Your task to perform on an android device: Open calendar and show me the first week of next month Image 0: 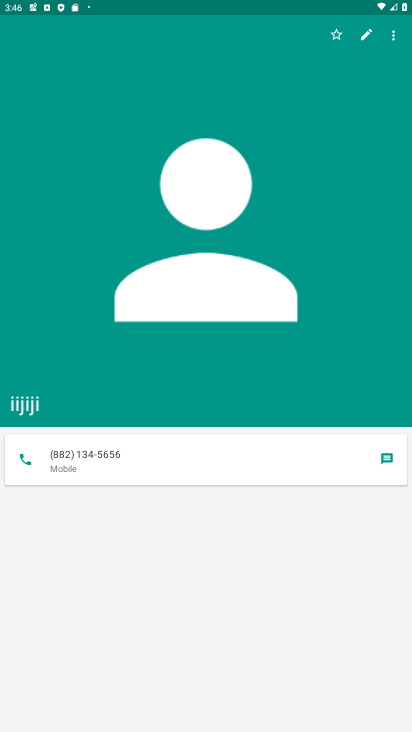
Step 0: press home button
Your task to perform on an android device: Open calendar and show me the first week of next month Image 1: 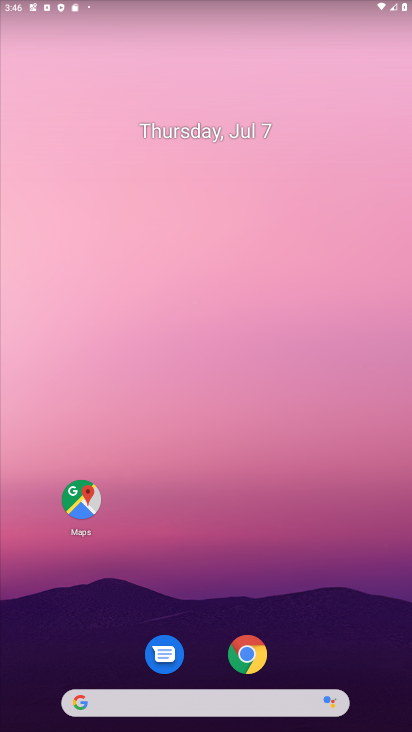
Step 1: drag from (317, 677) to (285, 227)
Your task to perform on an android device: Open calendar and show me the first week of next month Image 2: 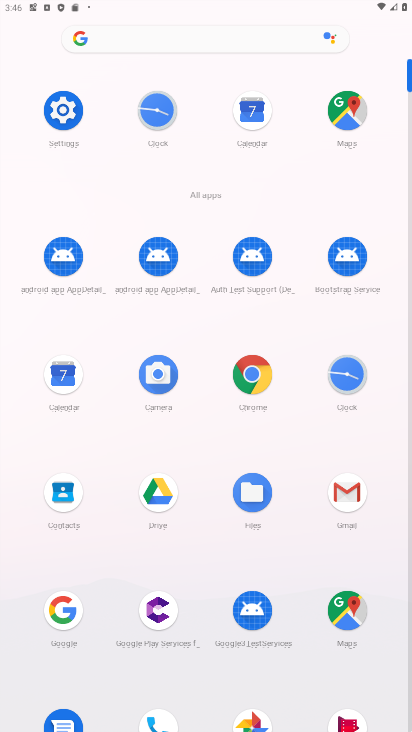
Step 2: click (242, 123)
Your task to perform on an android device: Open calendar and show me the first week of next month Image 3: 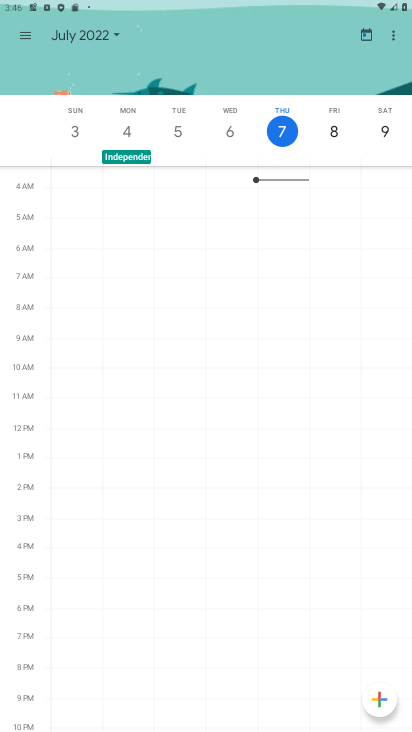
Step 3: click (86, 35)
Your task to perform on an android device: Open calendar and show me the first week of next month Image 4: 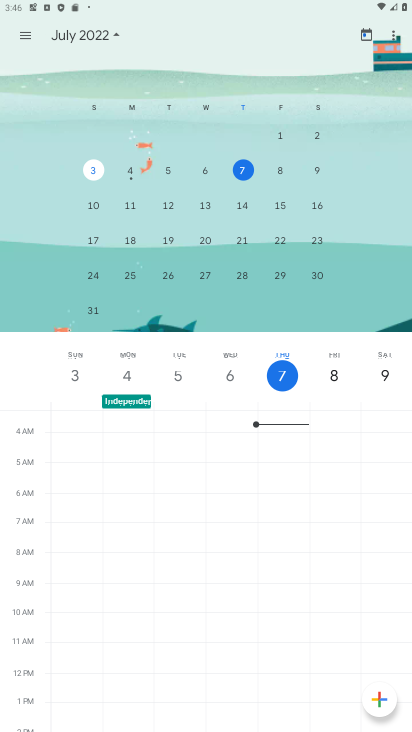
Step 4: task complete